Your task to perform on an android device: change notifications settings Image 0: 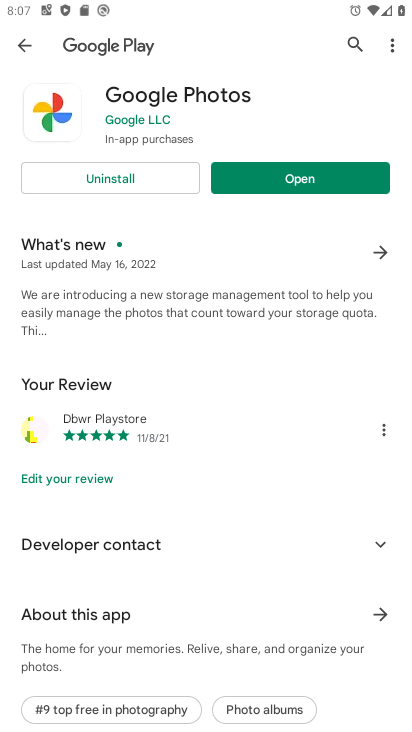
Step 0: press home button
Your task to perform on an android device: change notifications settings Image 1: 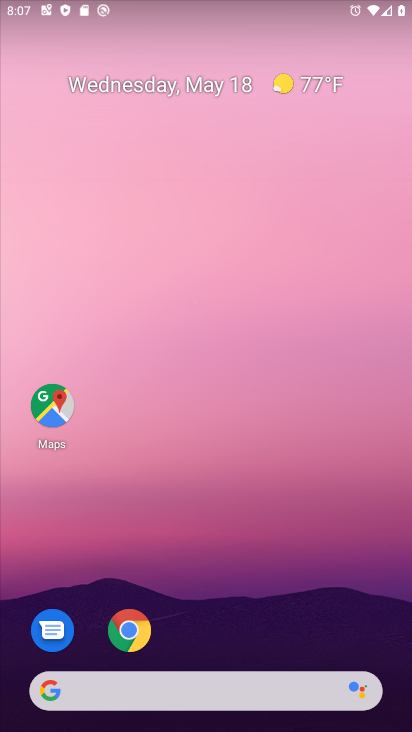
Step 1: drag from (278, 506) to (305, 392)
Your task to perform on an android device: change notifications settings Image 2: 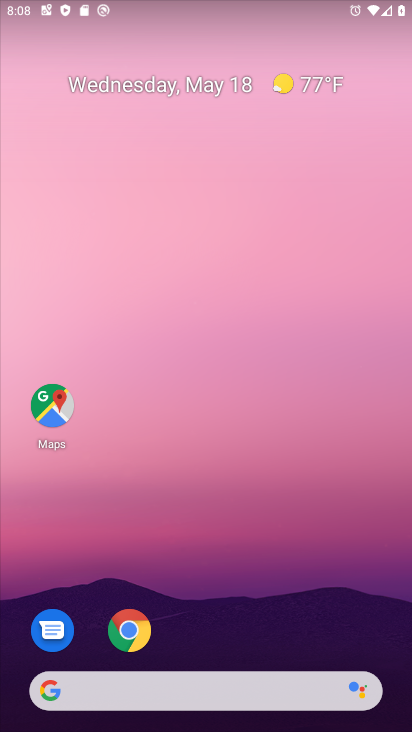
Step 2: drag from (249, 575) to (280, 282)
Your task to perform on an android device: change notifications settings Image 3: 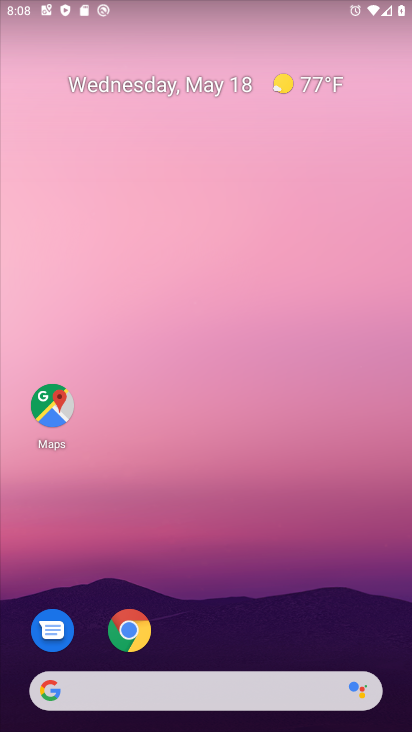
Step 3: drag from (280, 636) to (347, 191)
Your task to perform on an android device: change notifications settings Image 4: 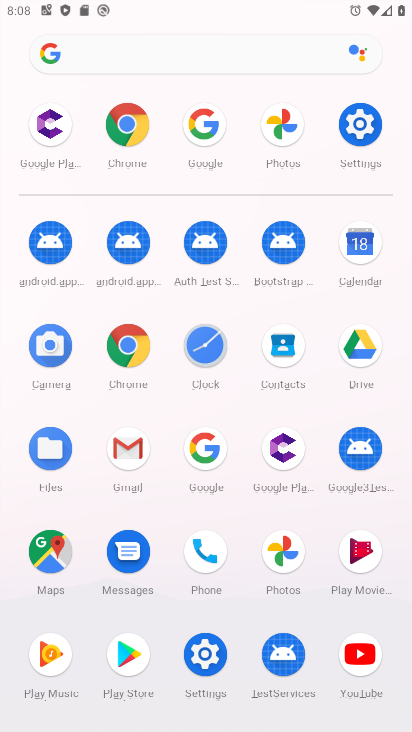
Step 4: click (366, 127)
Your task to perform on an android device: change notifications settings Image 5: 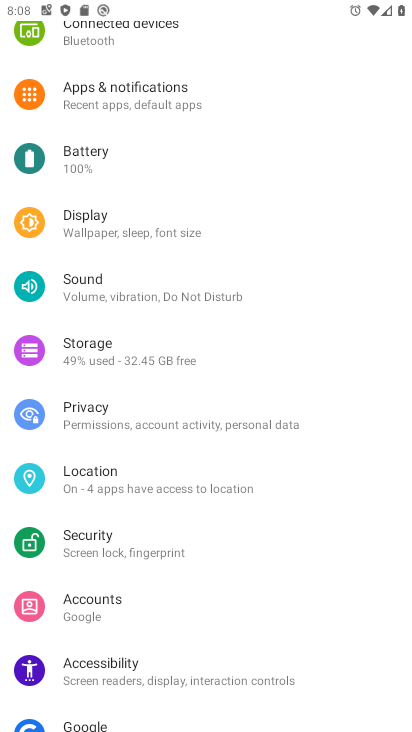
Step 5: click (173, 111)
Your task to perform on an android device: change notifications settings Image 6: 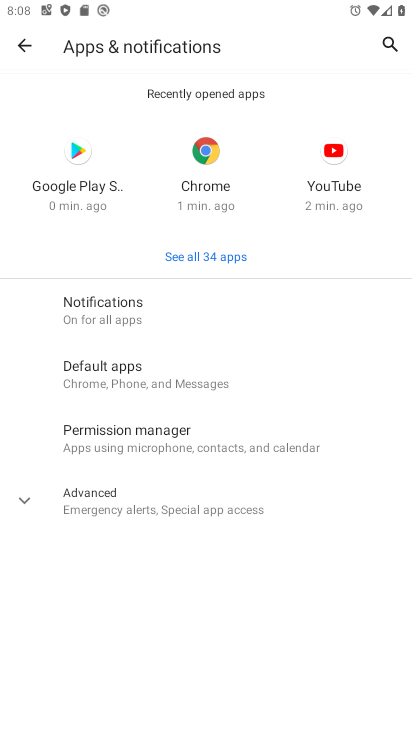
Step 6: click (157, 318)
Your task to perform on an android device: change notifications settings Image 7: 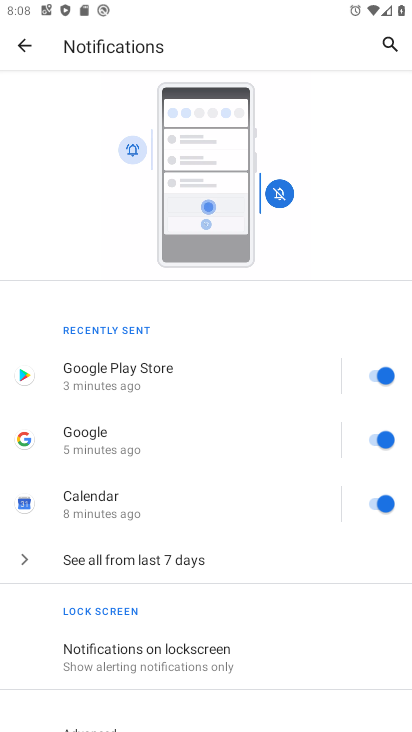
Step 7: click (378, 379)
Your task to perform on an android device: change notifications settings Image 8: 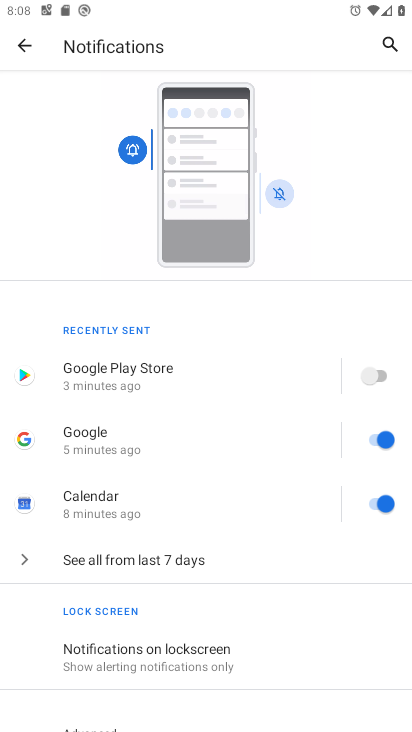
Step 8: task complete